Your task to perform on an android device: Go to accessibility settings Image 0: 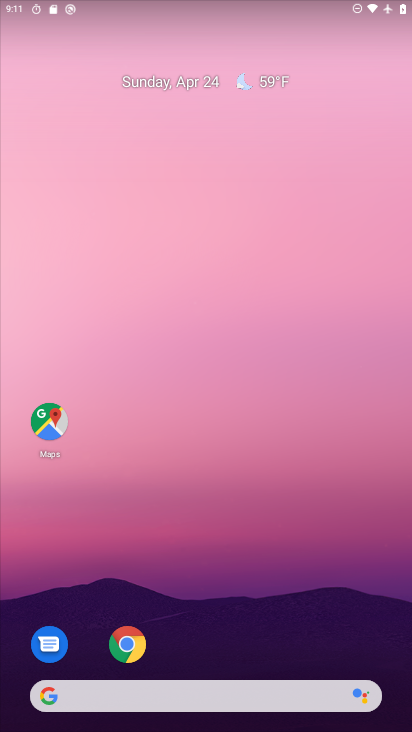
Step 0: drag from (211, 507) to (209, 126)
Your task to perform on an android device: Go to accessibility settings Image 1: 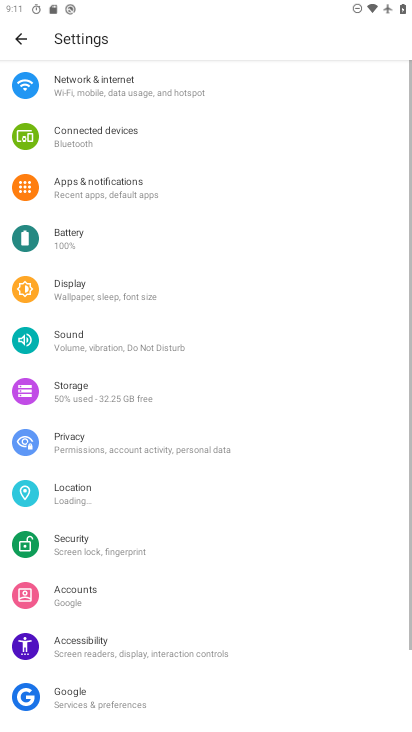
Step 1: press home button
Your task to perform on an android device: Go to accessibility settings Image 2: 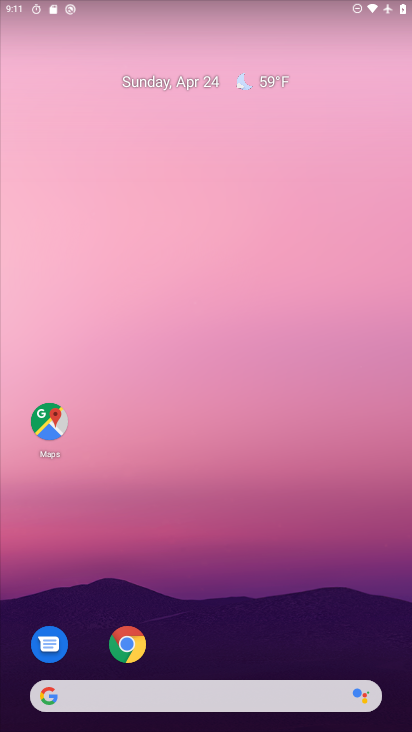
Step 2: drag from (218, 651) to (225, 25)
Your task to perform on an android device: Go to accessibility settings Image 3: 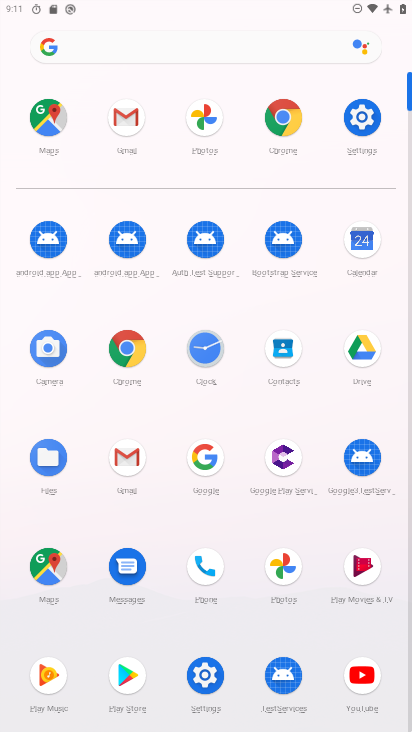
Step 3: click (204, 671)
Your task to perform on an android device: Go to accessibility settings Image 4: 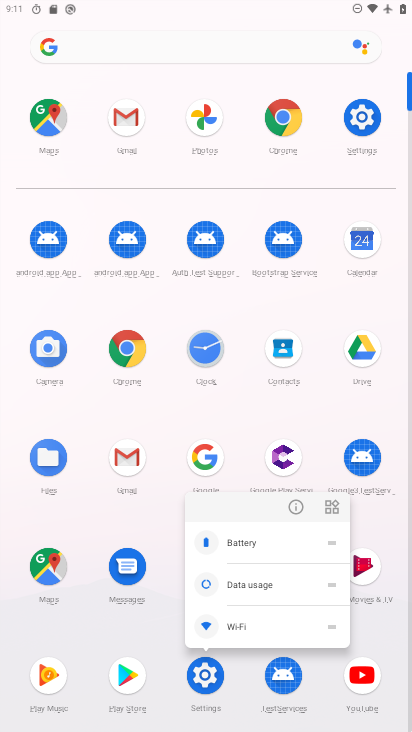
Step 4: click (202, 668)
Your task to perform on an android device: Go to accessibility settings Image 5: 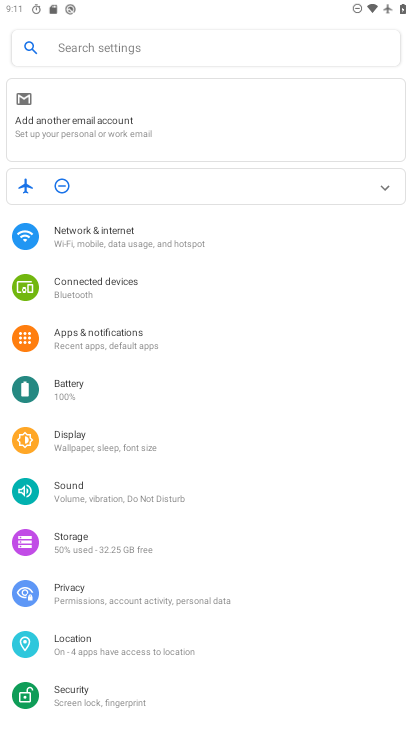
Step 5: drag from (146, 682) to (157, 189)
Your task to perform on an android device: Go to accessibility settings Image 6: 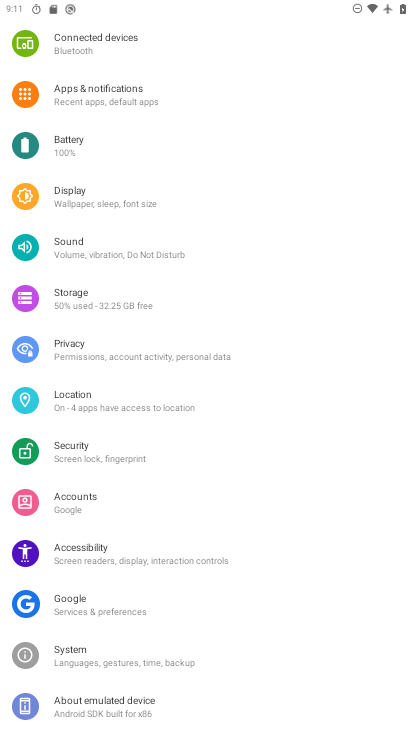
Step 6: click (117, 540)
Your task to perform on an android device: Go to accessibility settings Image 7: 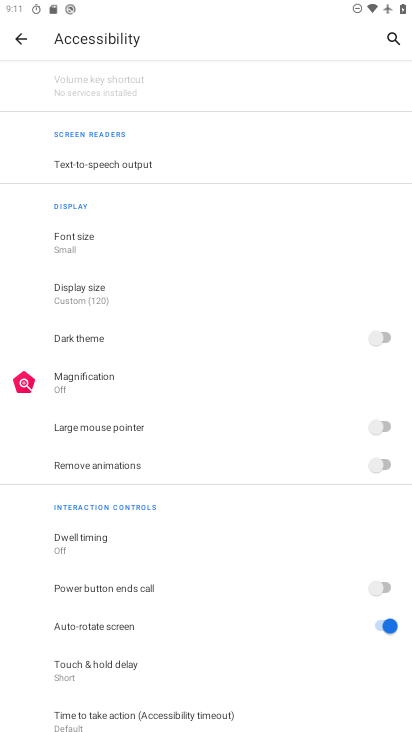
Step 7: task complete